Your task to perform on an android device: toggle improve location accuracy Image 0: 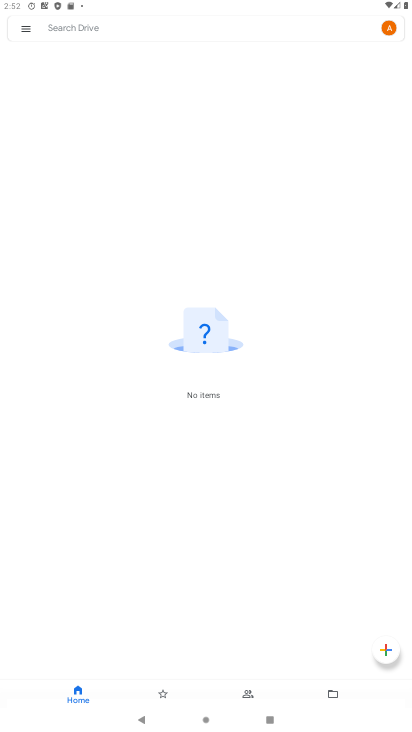
Step 0: press home button
Your task to perform on an android device: toggle improve location accuracy Image 1: 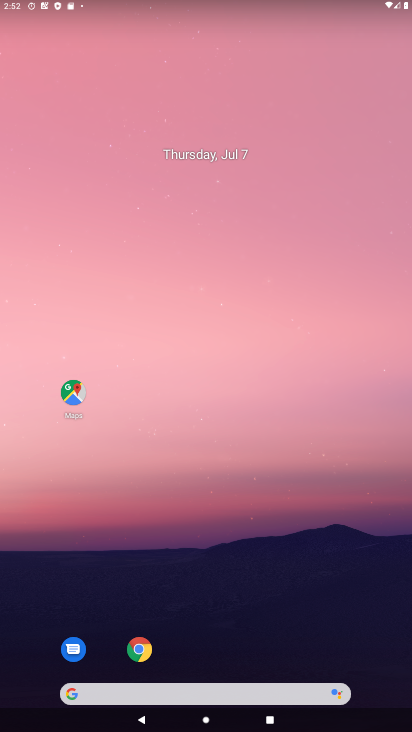
Step 1: drag from (213, 696) to (275, 13)
Your task to perform on an android device: toggle improve location accuracy Image 2: 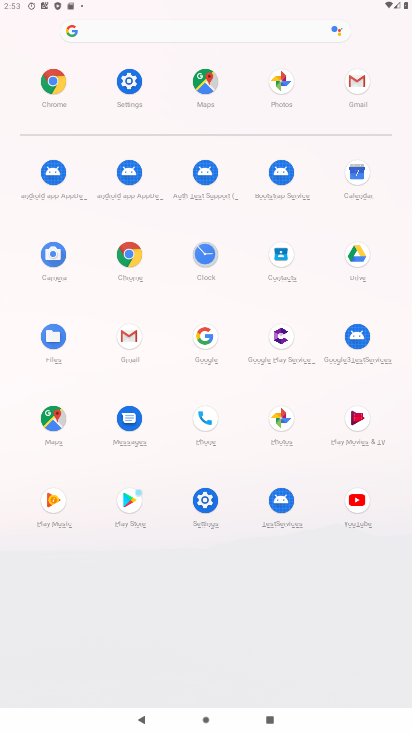
Step 2: click (202, 501)
Your task to perform on an android device: toggle improve location accuracy Image 3: 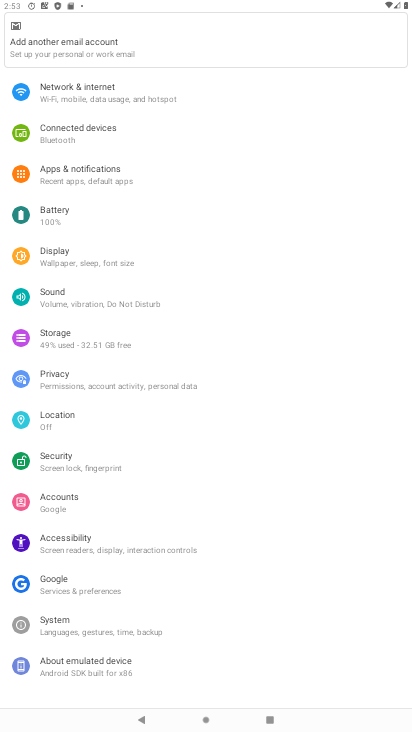
Step 3: click (86, 418)
Your task to perform on an android device: toggle improve location accuracy Image 4: 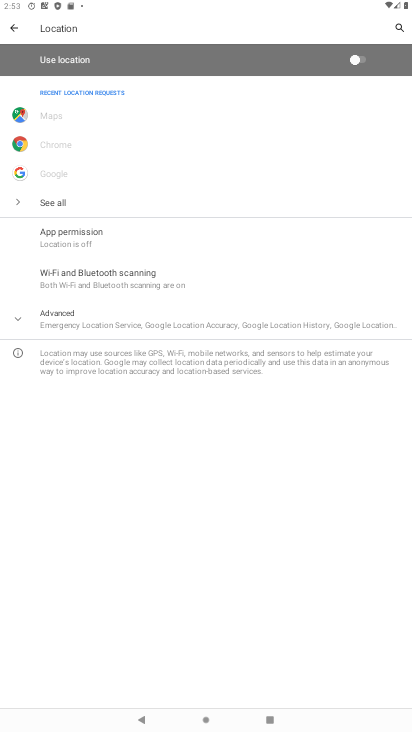
Step 4: click (116, 315)
Your task to perform on an android device: toggle improve location accuracy Image 5: 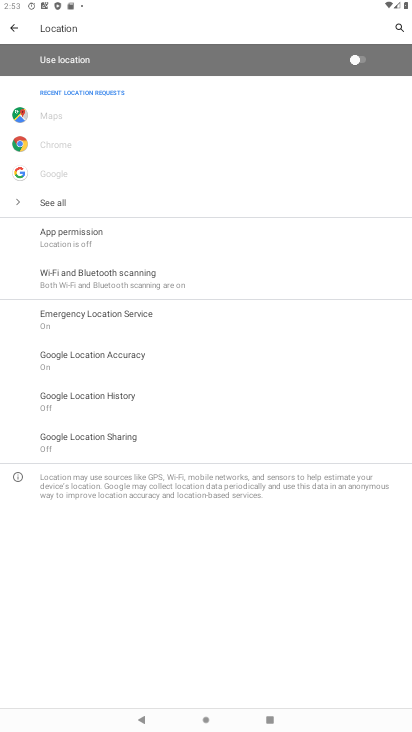
Step 5: click (110, 362)
Your task to perform on an android device: toggle improve location accuracy Image 6: 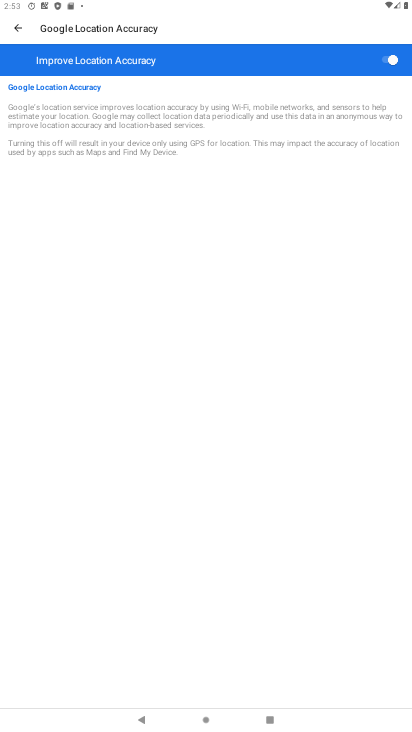
Step 6: click (388, 54)
Your task to perform on an android device: toggle improve location accuracy Image 7: 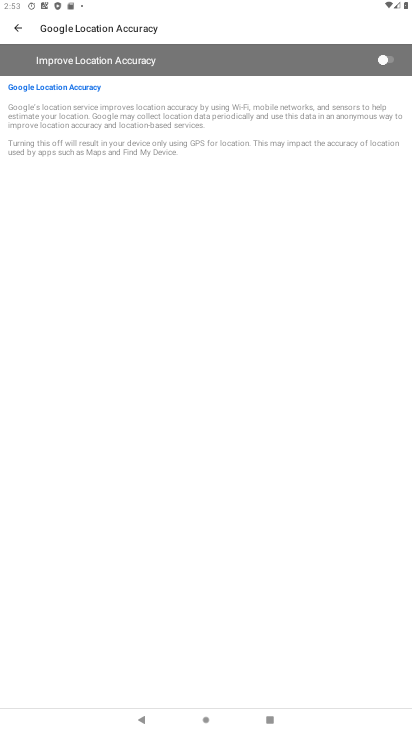
Step 7: task complete